Your task to perform on an android device: open sync settings in chrome Image 0: 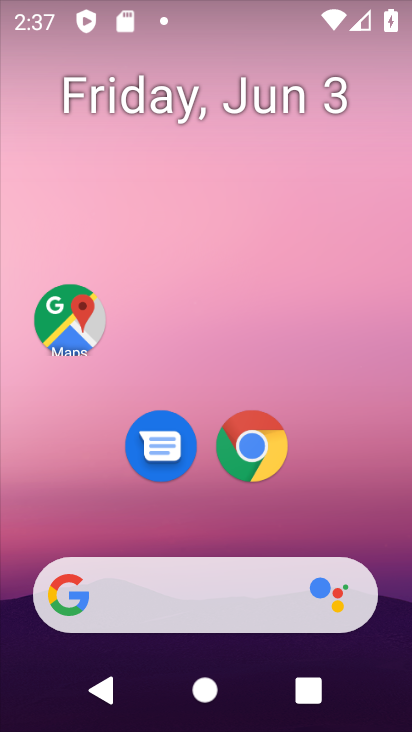
Step 0: drag from (387, 523) to (243, 2)
Your task to perform on an android device: open sync settings in chrome Image 1: 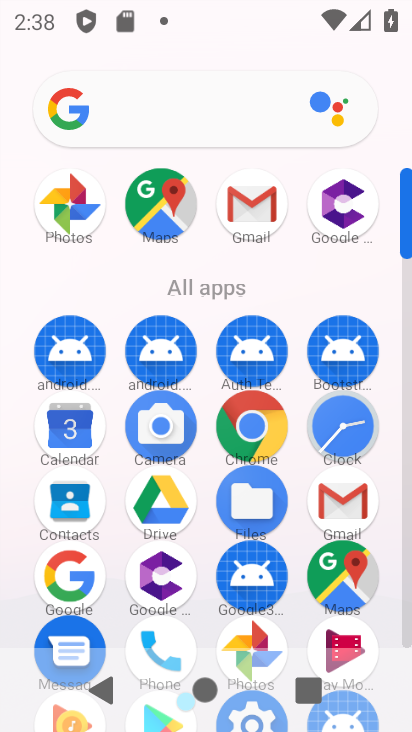
Step 1: click (256, 411)
Your task to perform on an android device: open sync settings in chrome Image 2: 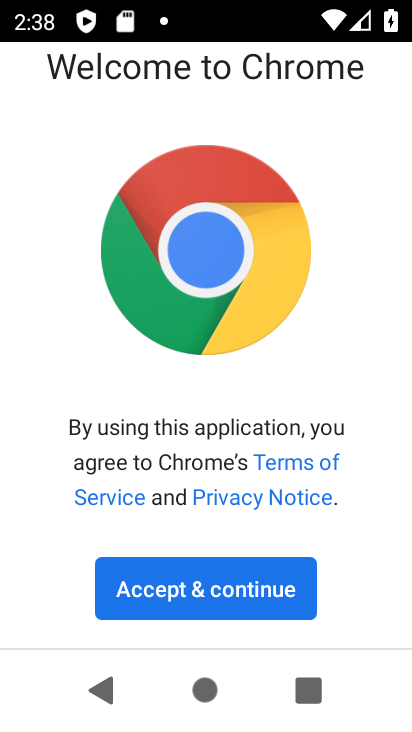
Step 2: click (251, 587)
Your task to perform on an android device: open sync settings in chrome Image 3: 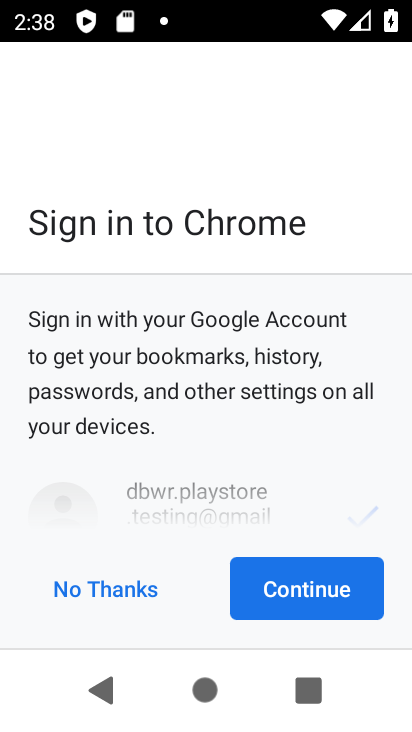
Step 3: click (251, 587)
Your task to perform on an android device: open sync settings in chrome Image 4: 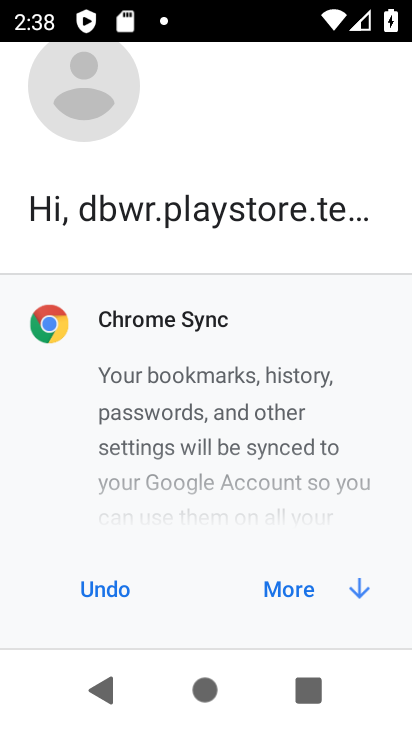
Step 4: click (273, 590)
Your task to perform on an android device: open sync settings in chrome Image 5: 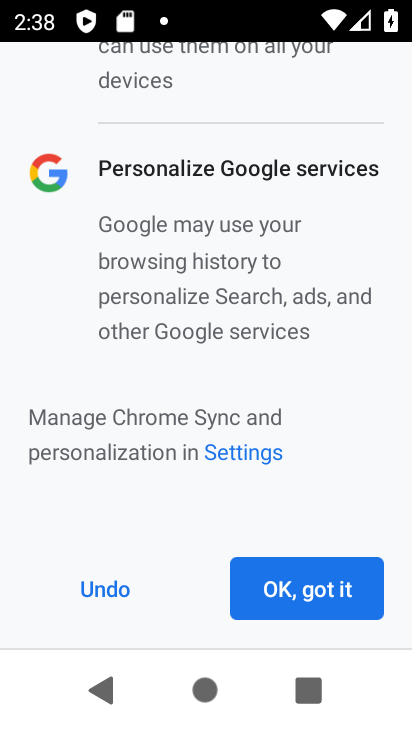
Step 5: click (273, 590)
Your task to perform on an android device: open sync settings in chrome Image 6: 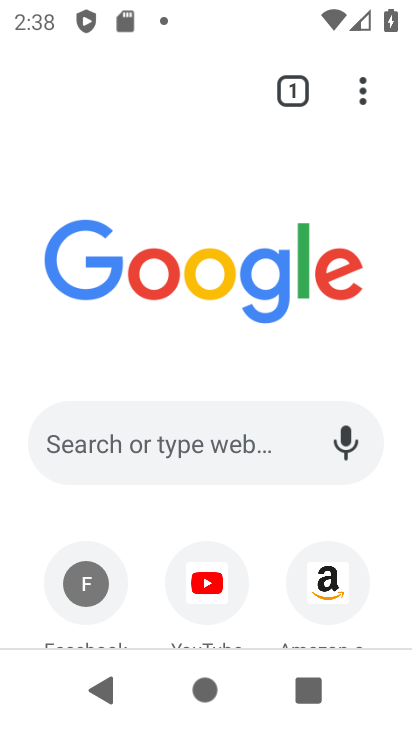
Step 6: click (369, 91)
Your task to perform on an android device: open sync settings in chrome Image 7: 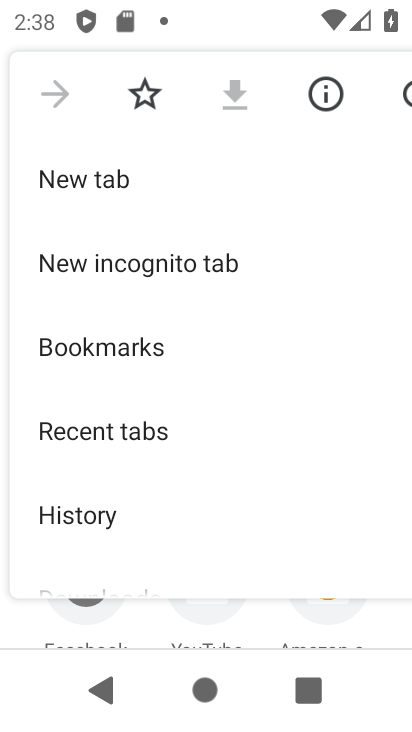
Step 7: drag from (237, 477) to (191, 247)
Your task to perform on an android device: open sync settings in chrome Image 8: 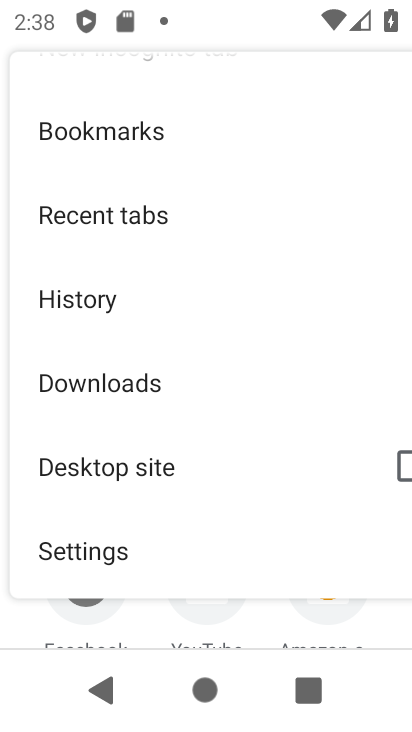
Step 8: click (201, 567)
Your task to perform on an android device: open sync settings in chrome Image 9: 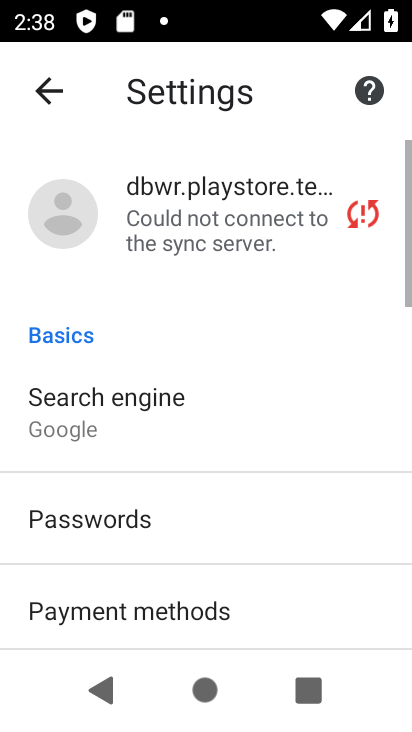
Step 9: task complete